Your task to perform on an android device: Turn on the flashlight Image 0: 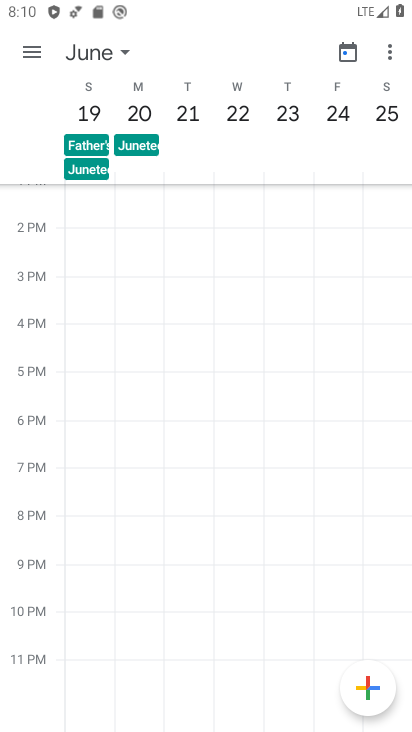
Step 0: press back button
Your task to perform on an android device: Turn on the flashlight Image 1: 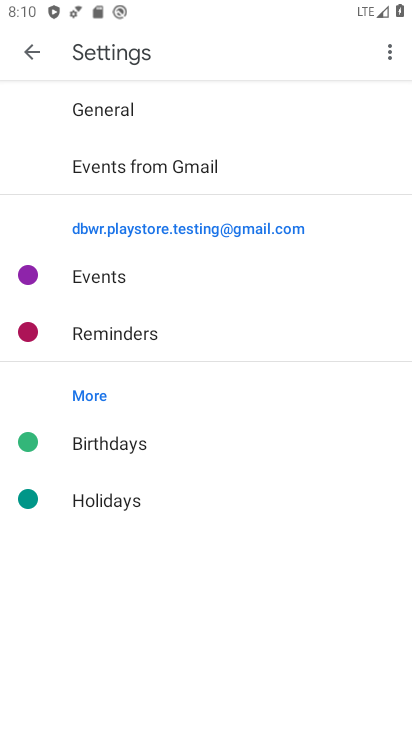
Step 1: press back button
Your task to perform on an android device: Turn on the flashlight Image 2: 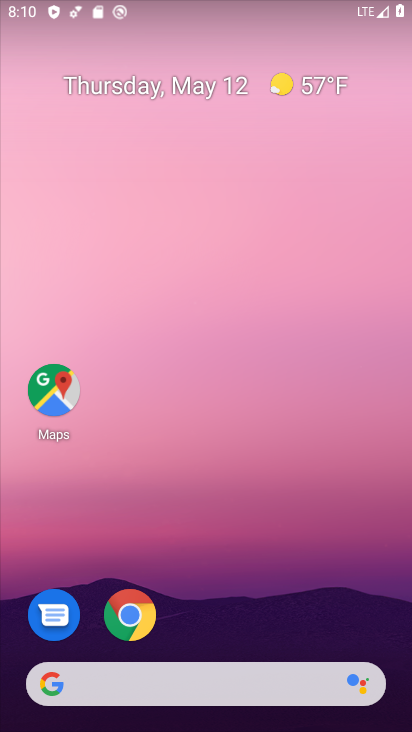
Step 2: drag from (252, 565) to (230, 28)
Your task to perform on an android device: Turn on the flashlight Image 3: 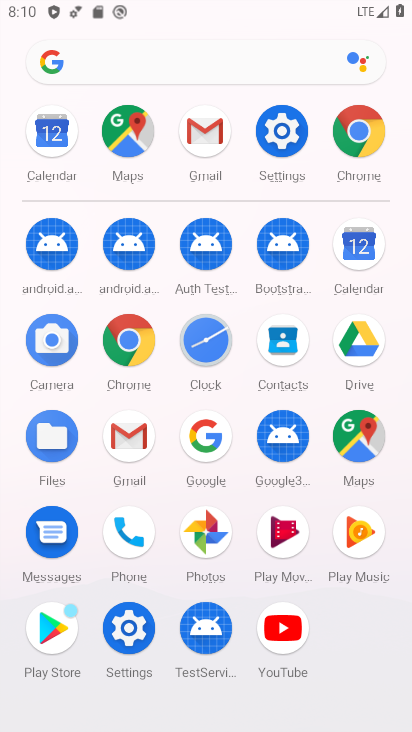
Step 3: click (125, 626)
Your task to perform on an android device: Turn on the flashlight Image 4: 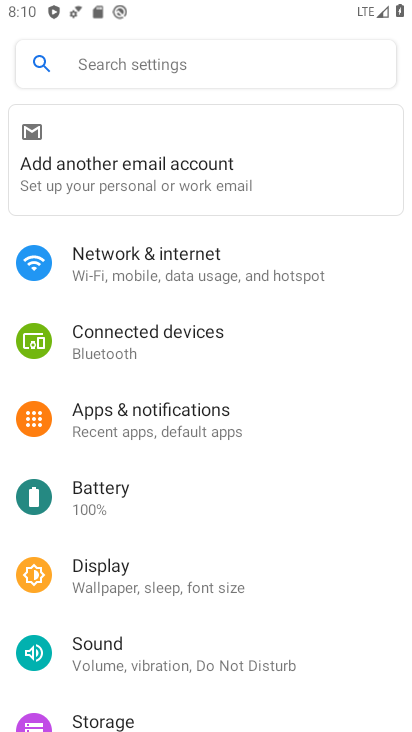
Step 4: click (226, 258)
Your task to perform on an android device: Turn on the flashlight Image 5: 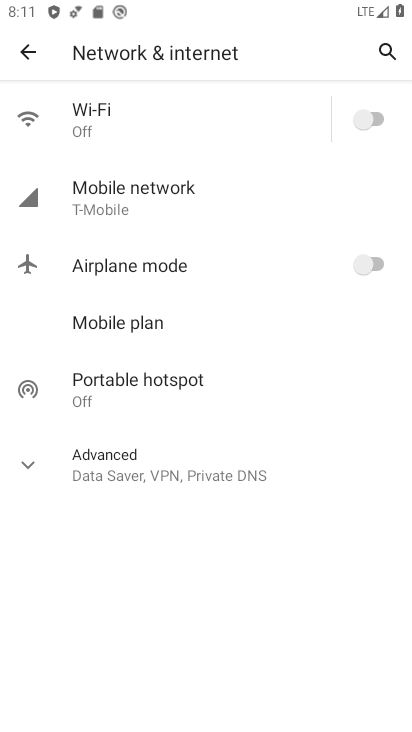
Step 5: click (35, 464)
Your task to perform on an android device: Turn on the flashlight Image 6: 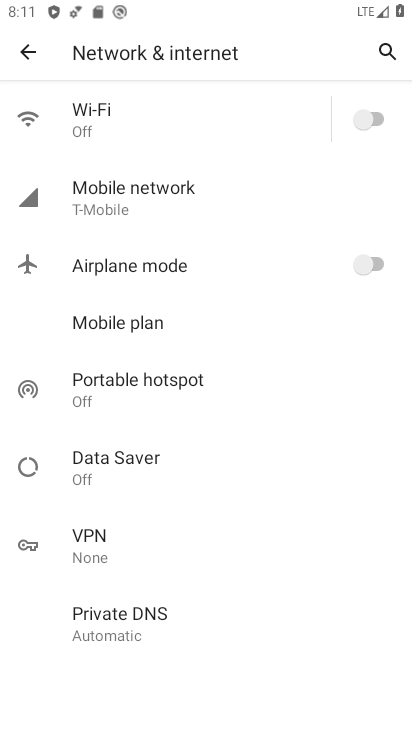
Step 6: task complete